Your task to perform on an android device: turn on location history Image 0: 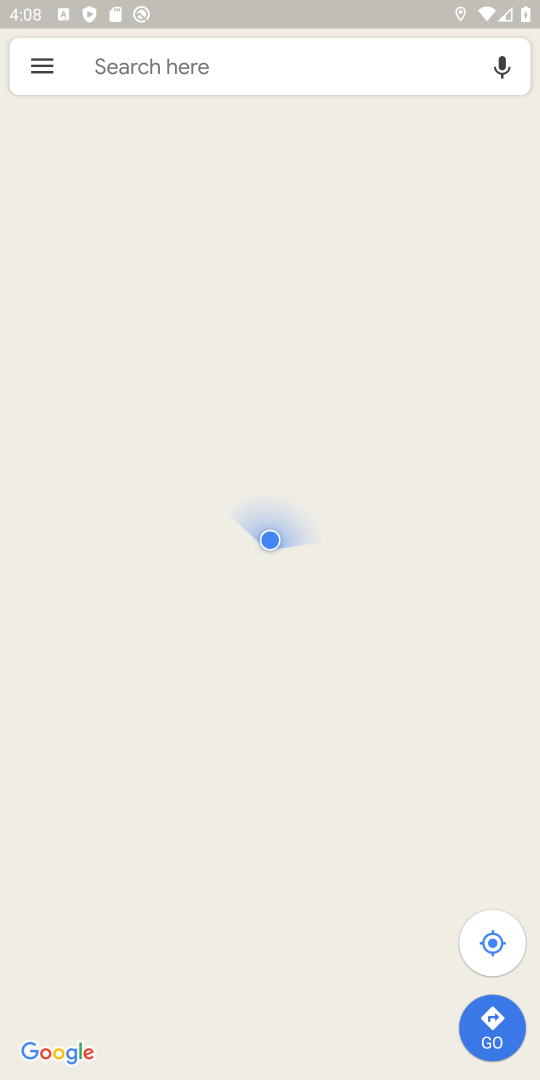
Step 0: press home button
Your task to perform on an android device: turn on location history Image 1: 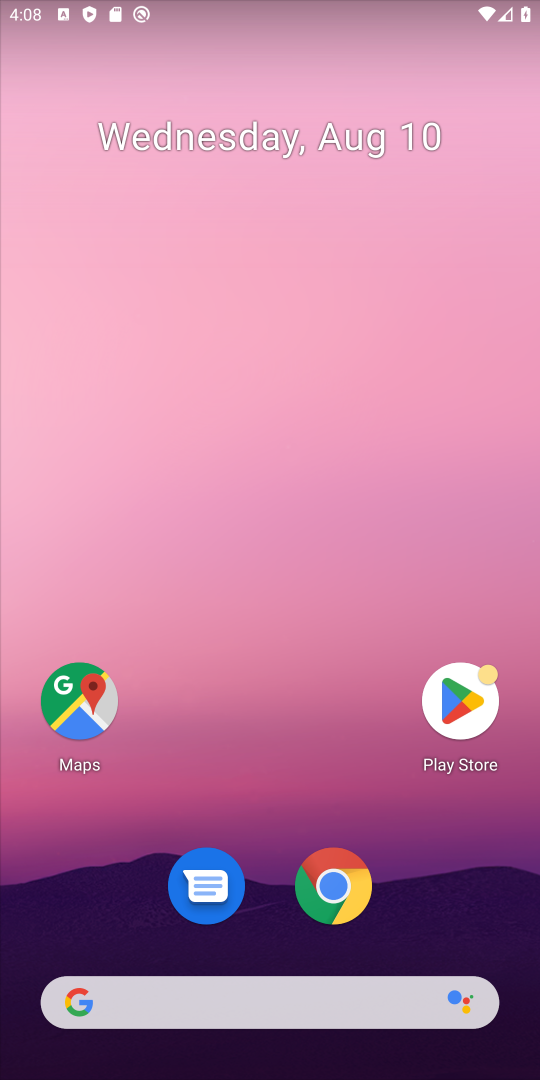
Step 1: drag from (477, 917) to (352, 357)
Your task to perform on an android device: turn on location history Image 2: 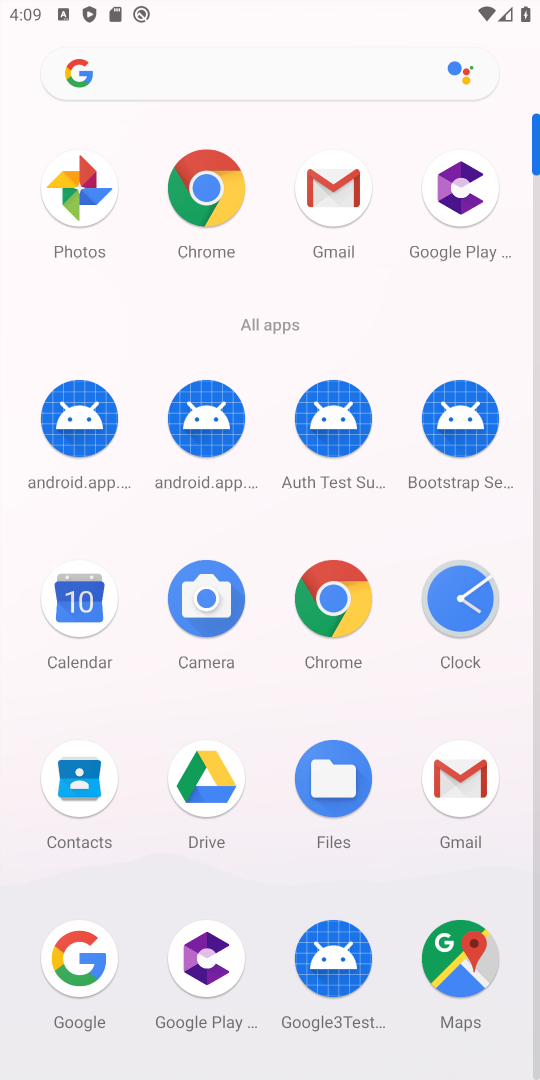
Step 2: drag from (143, 883) to (177, 668)
Your task to perform on an android device: turn on location history Image 3: 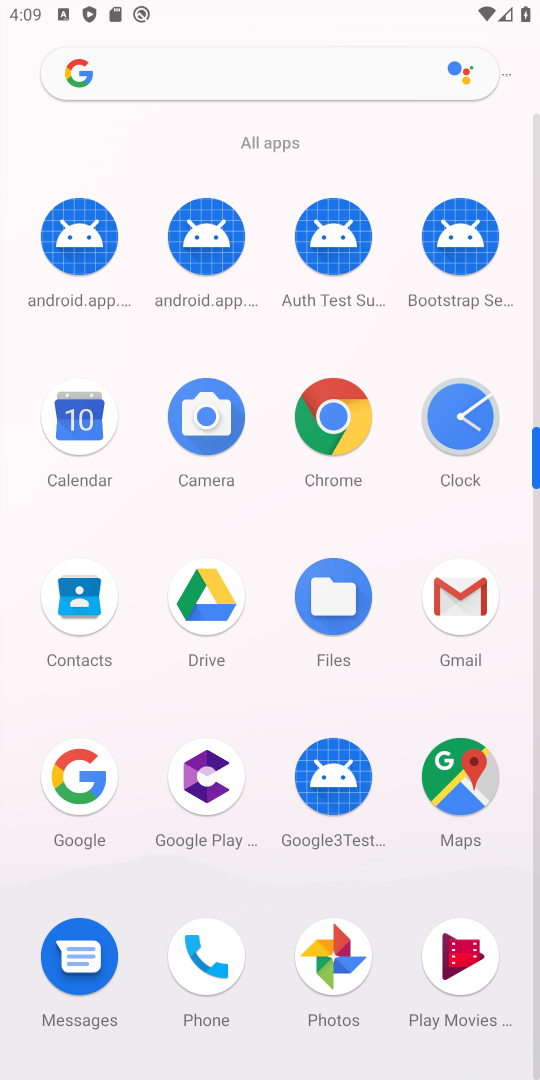
Step 3: drag from (300, 867) to (215, 507)
Your task to perform on an android device: turn on location history Image 4: 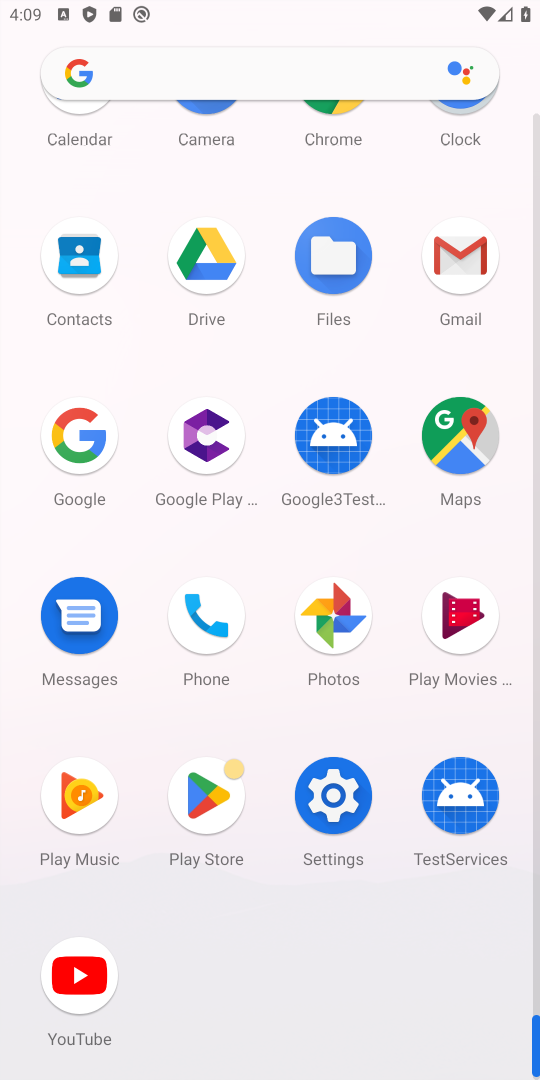
Step 4: click (295, 757)
Your task to perform on an android device: turn on location history Image 5: 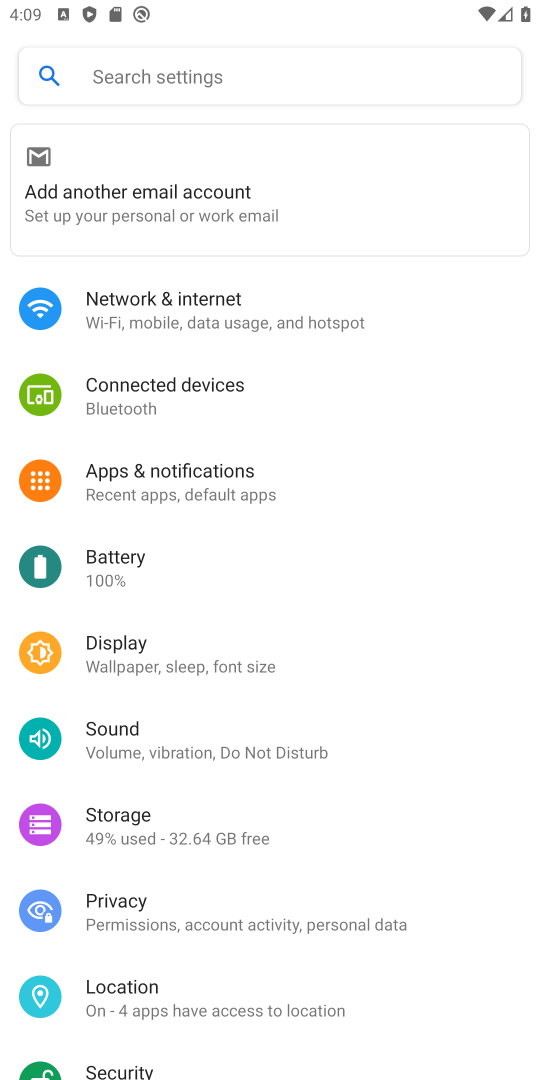
Step 5: click (171, 991)
Your task to perform on an android device: turn on location history Image 6: 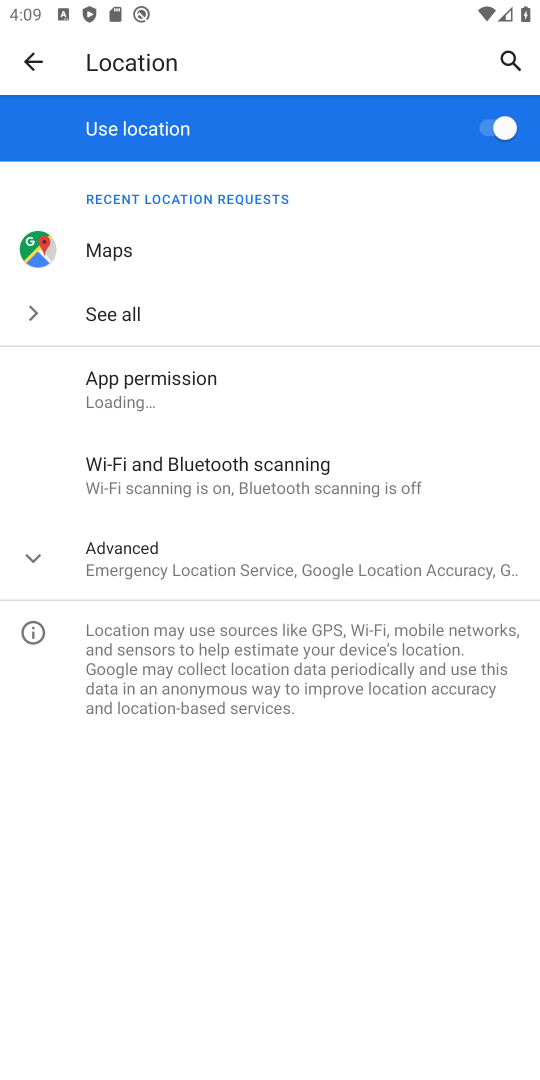
Step 6: click (159, 569)
Your task to perform on an android device: turn on location history Image 7: 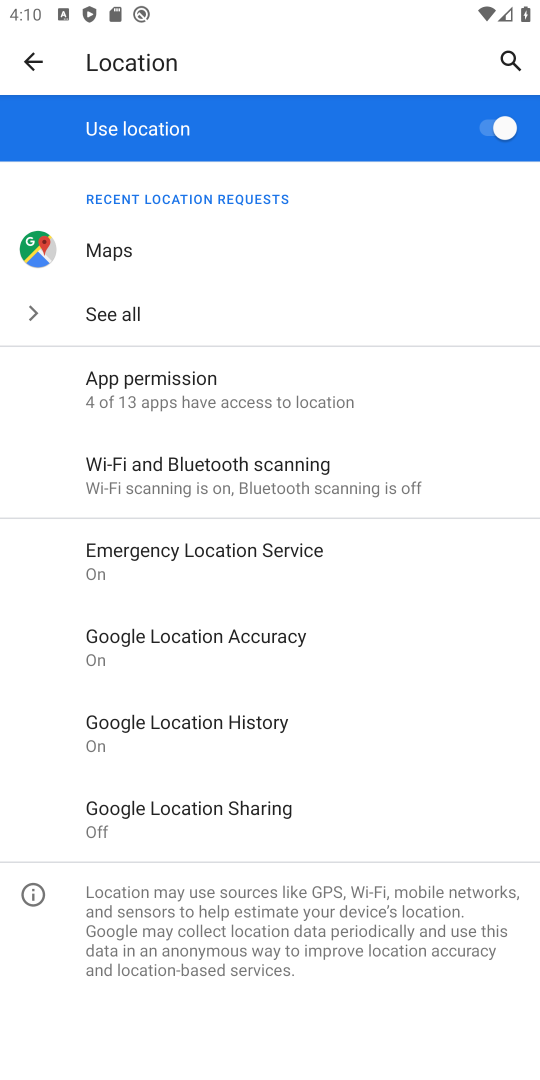
Step 7: task complete